Your task to perform on an android device: star an email in the gmail app Image 0: 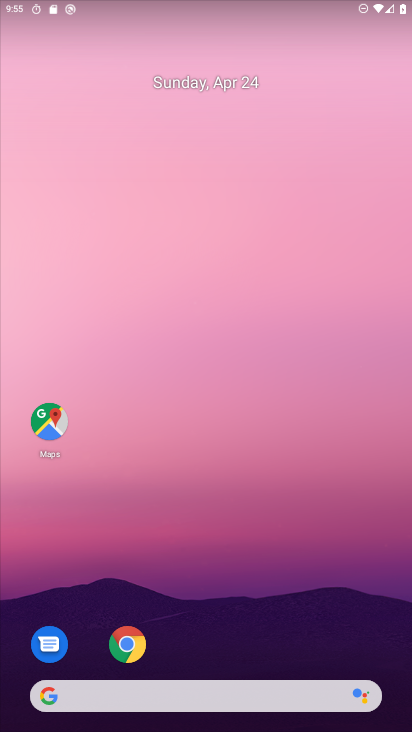
Step 0: drag from (197, 662) to (153, 67)
Your task to perform on an android device: star an email in the gmail app Image 1: 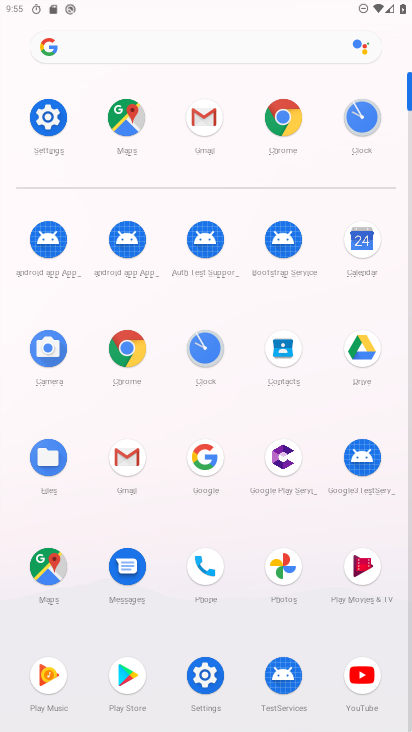
Step 1: click (137, 458)
Your task to perform on an android device: star an email in the gmail app Image 2: 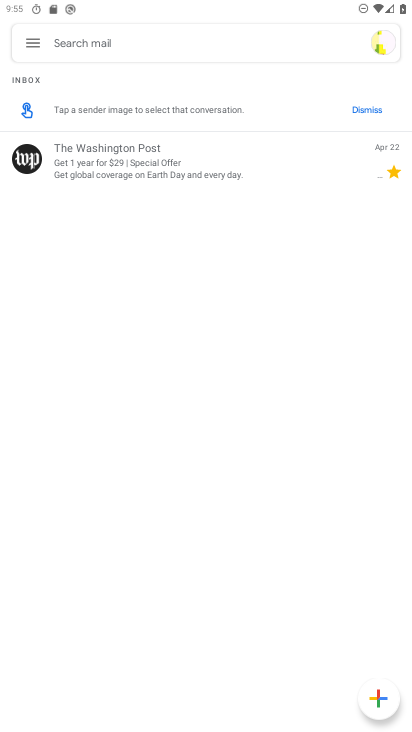
Step 2: click (210, 162)
Your task to perform on an android device: star an email in the gmail app Image 3: 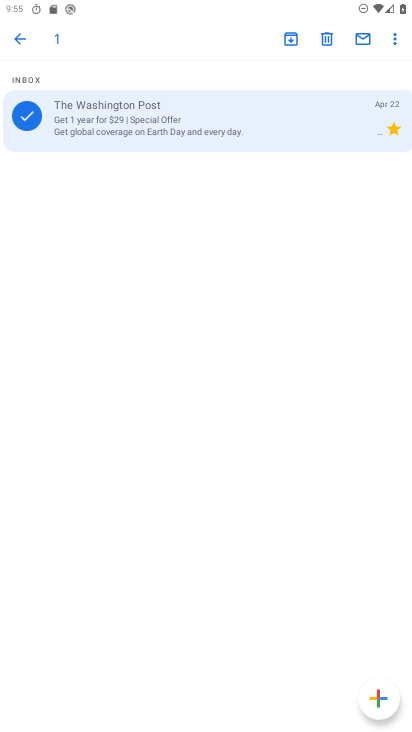
Step 3: click (211, 125)
Your task to perform on an android device: star an email in the gmail app Image 4: 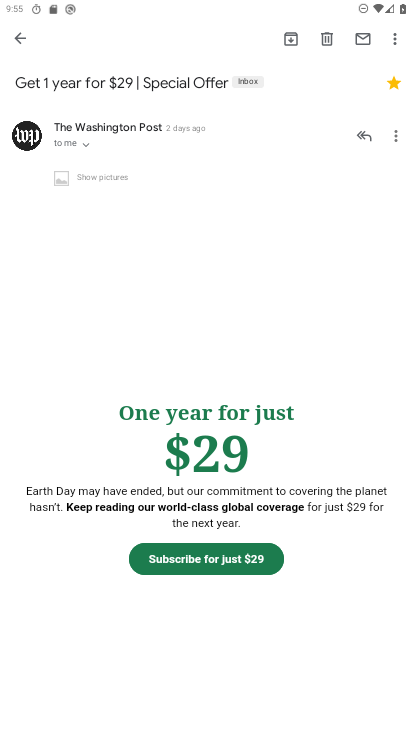
Step 4: task complete